Your task to perform on an android device: Open Yahoo.com Image 0: 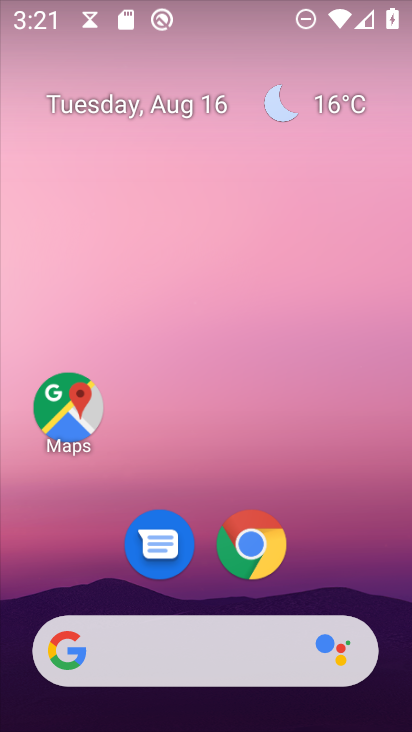
Step 0: click (248, 545)
Your task to perform on an android device: Open Yahoo.com Image 1: 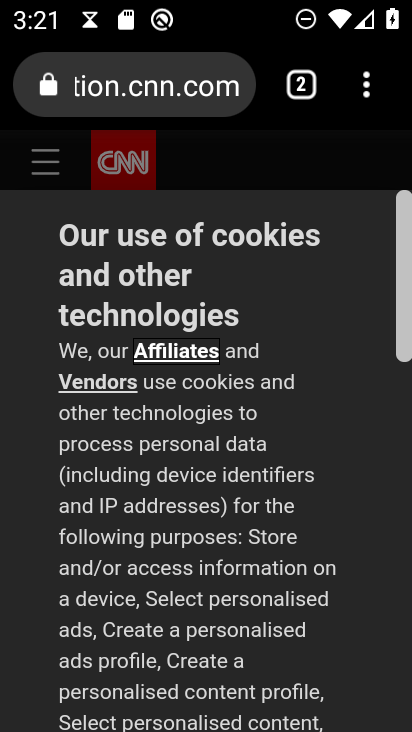
Step 1: click (240, 88)
Your task to perform on an android device: Open Yahoo.com Image 2: 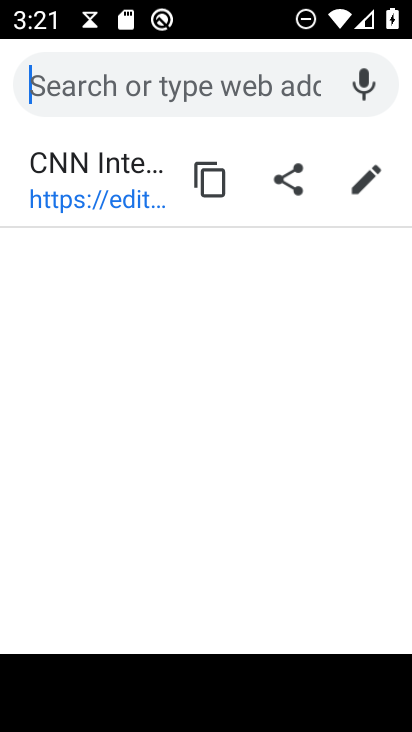
Step 2: type "Yahoo.com"
Your task to perform on an android device: Open Yahoo.com Image 3: 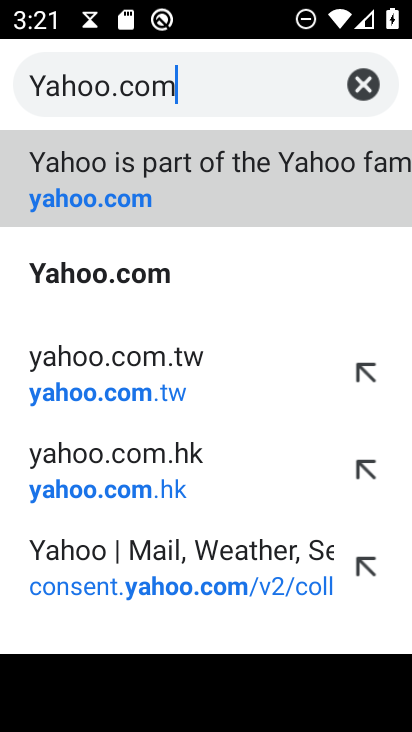
Step 3: click (155, 284)
Your task to perform on an android device: Open Yahoo.com Image 4: 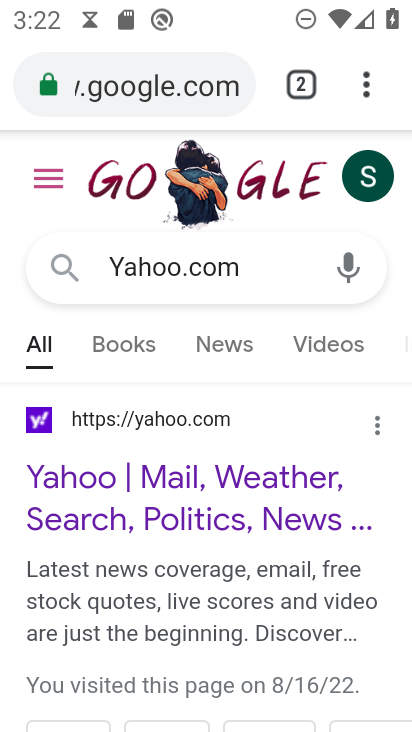
Step 4: click (146, 480)
Your task to perform on an android device: Open Yahoo.com Image 5: 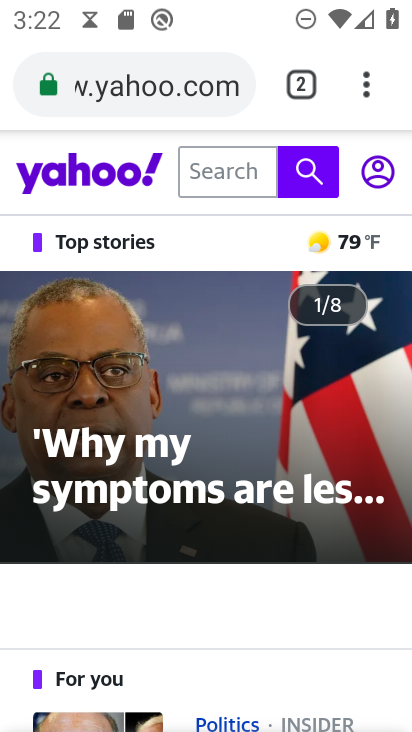
Step 5: task complete